Your task to perform on an android device: find which apps use the phone's location Image 0: 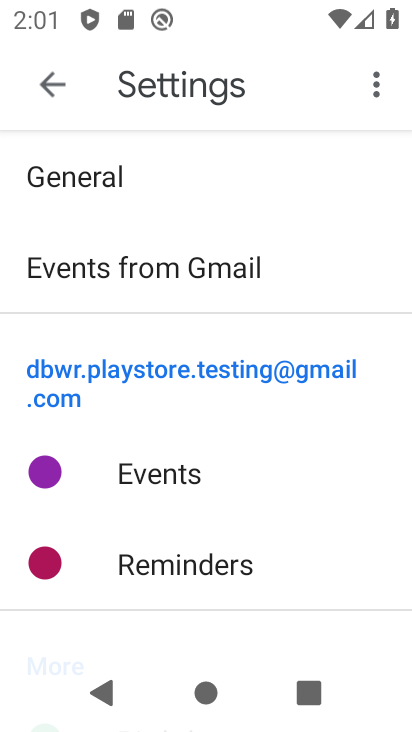
Step 0: task complete